Your task to perform on an android device: Show me recent news Image 0: 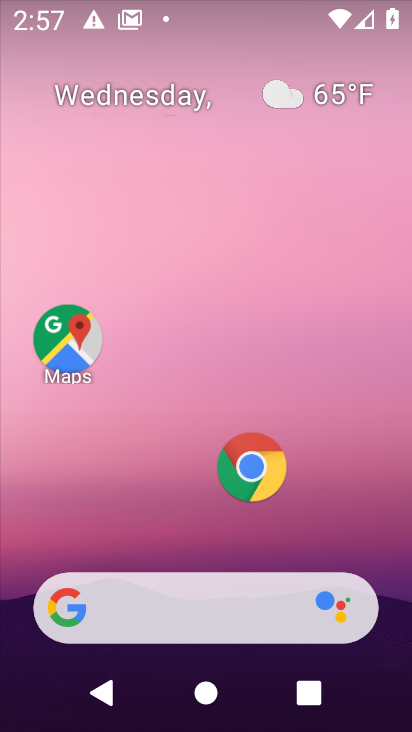
Step 0: drag from (165, 476) to (213, 62)
Your task to perform on an android device: Show me recent news Image 1: 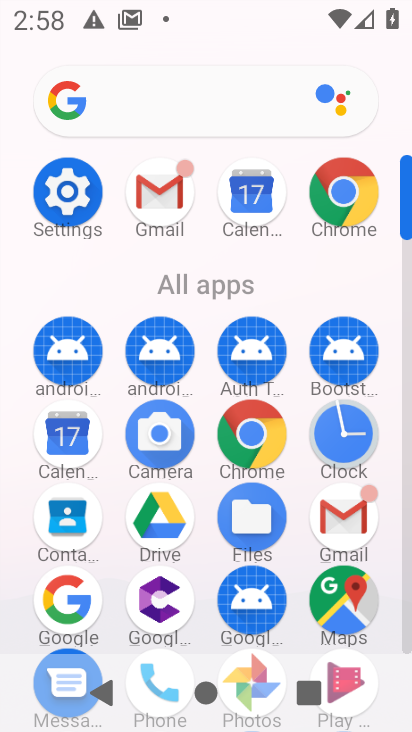
Step 1: click (175, 109)
Your task to perform on an android device: Show me recent news Image 2: 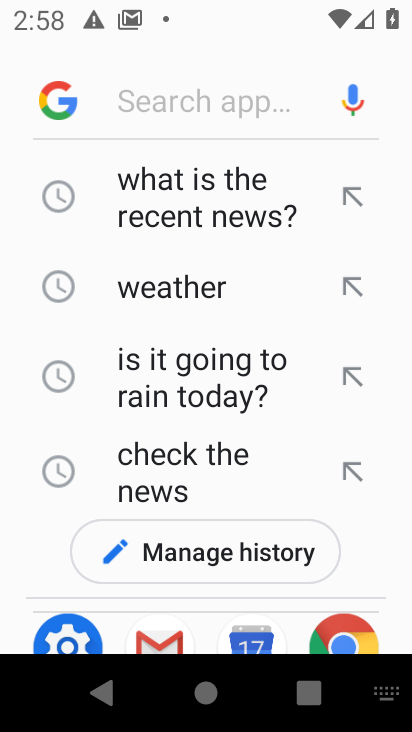
Step 2: type "recent news"
Your task to perform on an android device: Show me recent news Image 3: 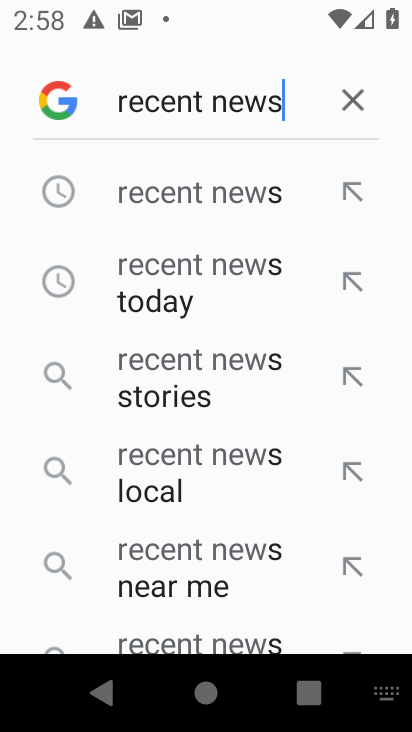
Step 3: type ""
Your task to perform on an android device: Show me recent news Image 4: 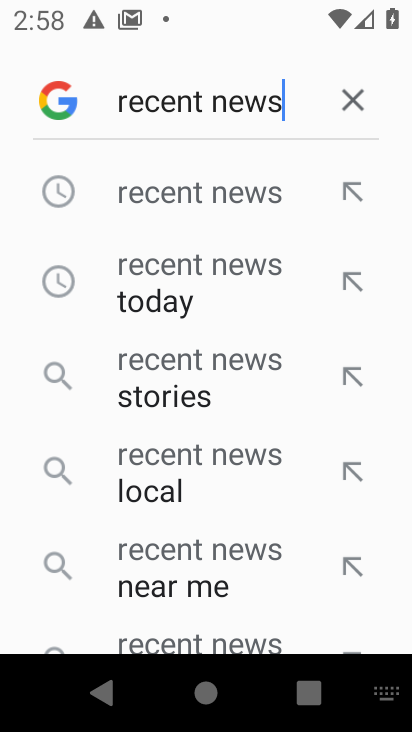
Step 4: press enter
Your task to perform on an android device: Show me recent news Image 5: 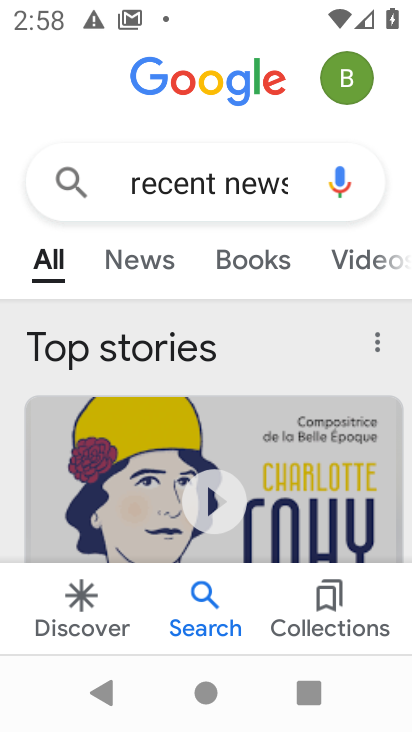
Step 5: task complete